Your task to perform on an android device: Open the stopwatch Image 0: 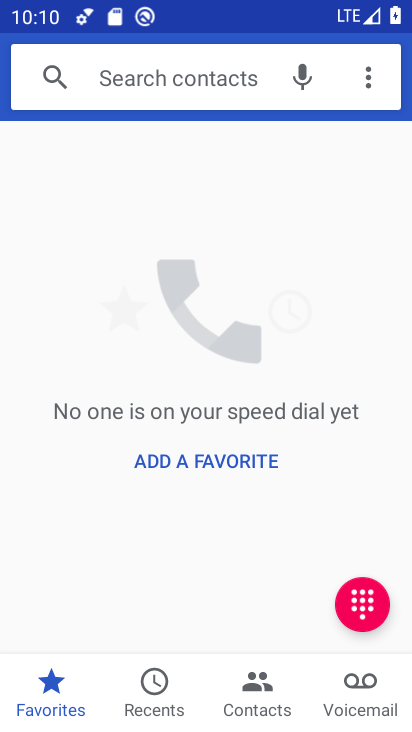
Step 0: press home button
Your task to perform on an android device: Open the stopwatch Image 1: 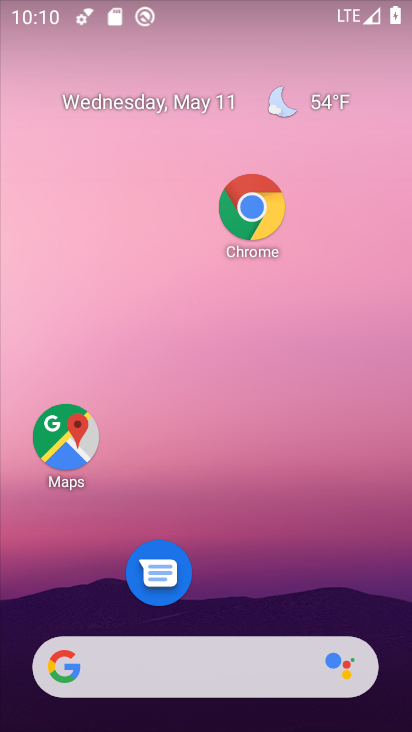
Step 1: drag from (254, 682) to (258, 33)
Your task to perform on an android device: Open the stopwatch Image 2: 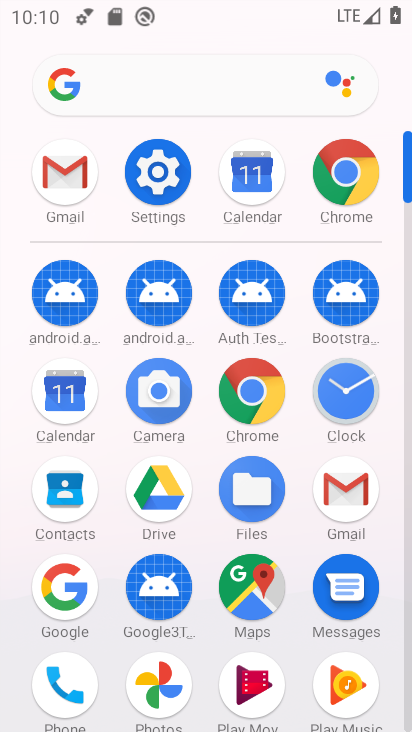
Step 2: click (343, 386)
Your task to perform on an android device: Open the stopwatch Image 3: 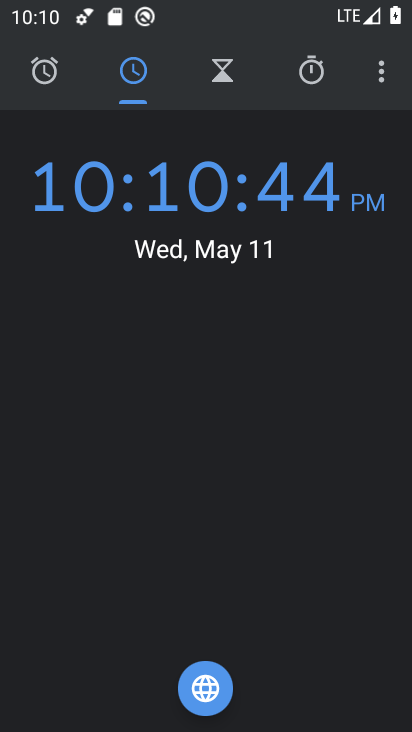
Step 3: click (309, 79)
Your task to perform on an android device: Open the stopwatch Image 4: 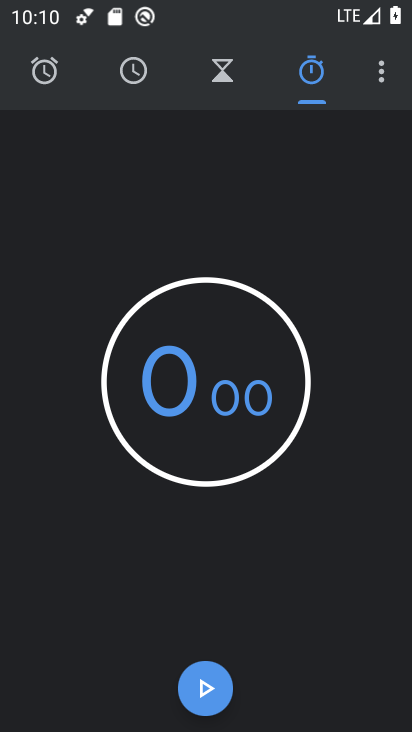
Step 4: click (203, 680)
Your task to perform on an android device: Open the stopwatch Image 5: 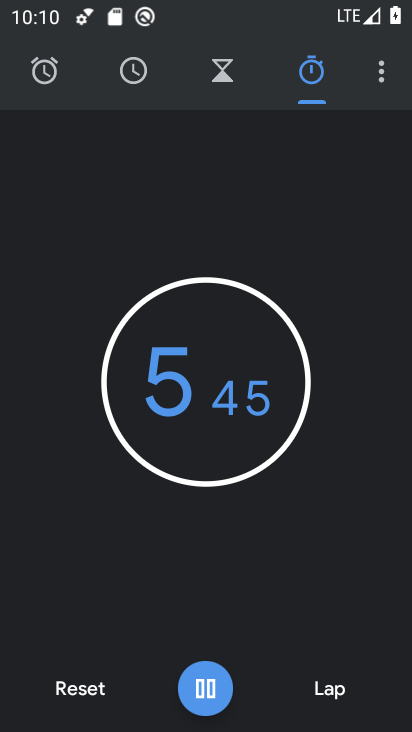
Step 5: task complete